Your task to perform on an android device: all mails in gmail Image 0: 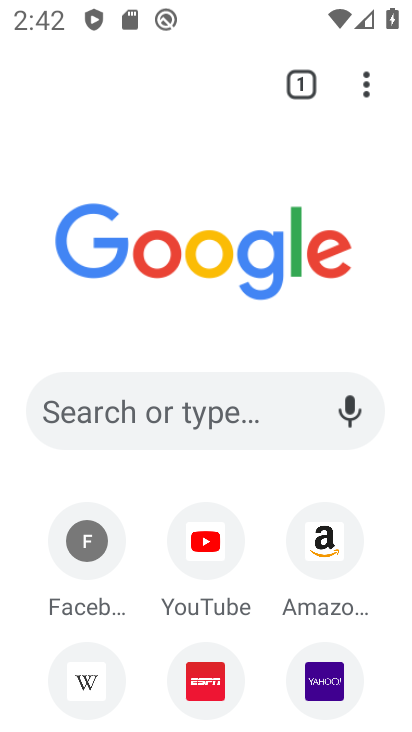
Step 0: press home button
Your task to perform on an android device: all mails in gmail Image 1: 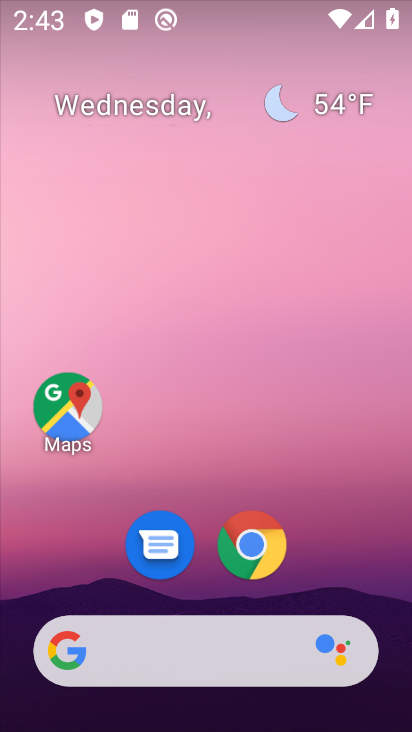
Step 1: drag from (227, 655) to (212, 168)
Your task to perform on an android device: all mails in gmail Image 2: 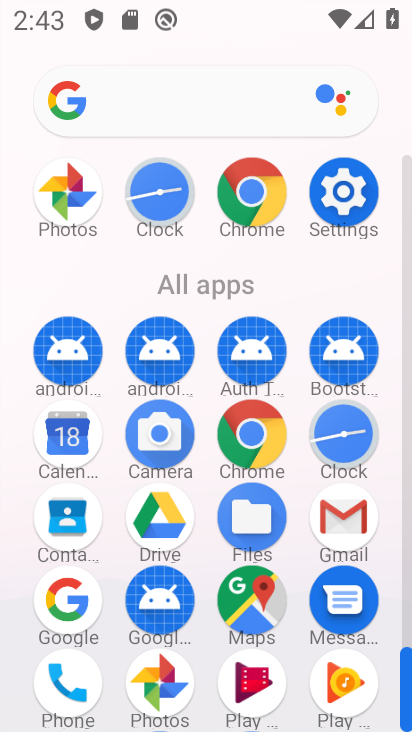
Step 2: click (316, 524)
Your task to perform on an android device: all mails in gmail Image 3: 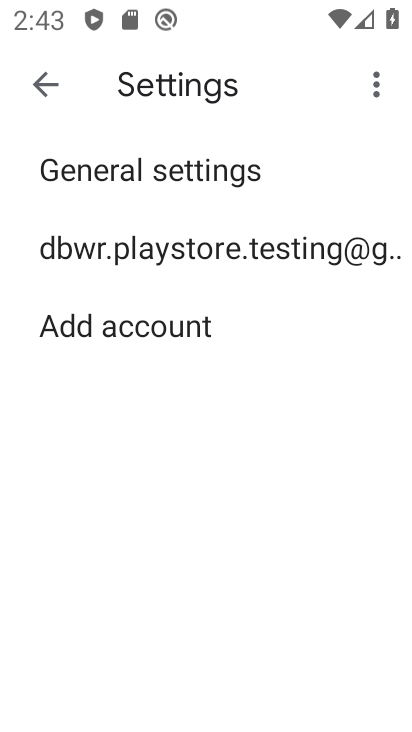
Step 3: click (46, 90)
Your task to perform on an android device: all mails in gmail Image 4: 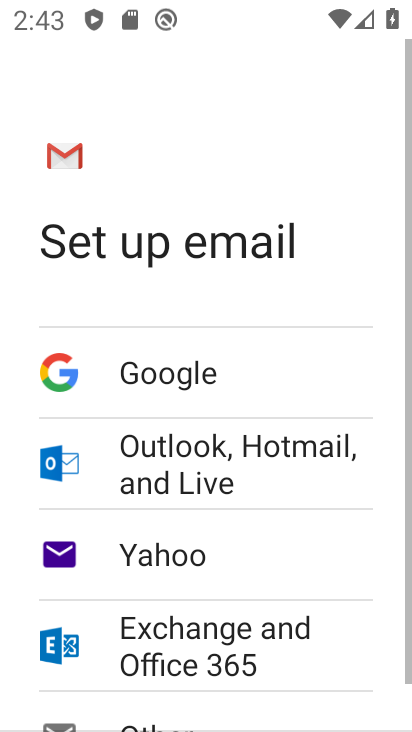
Step 4: press back button
Your task to perform on an android device: all mails in gmail Image 5: 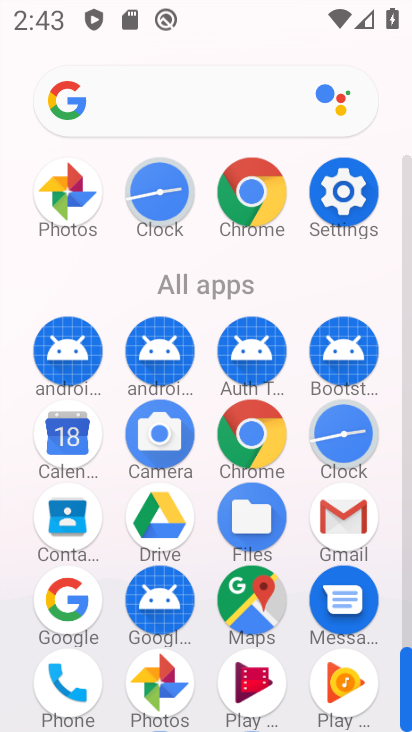
Step 5: click (347, 520)
Your task to perform on an android device: all mails in gmail Image 6: 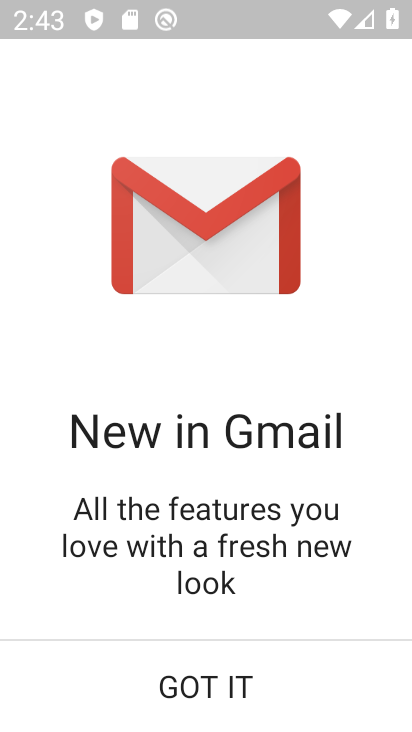
Step 6: click (253, 677)
Your task to perform on an android device: all mails in gmail Image 7: 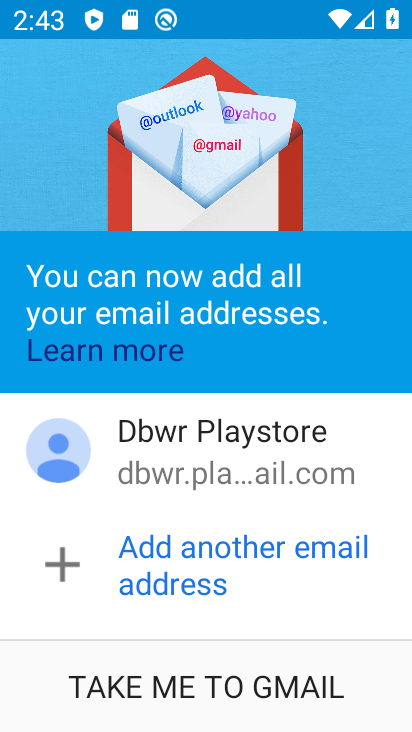
Step 7: click (126, 684)
Your task to perform on an android device: all mails in gmail Image 8: 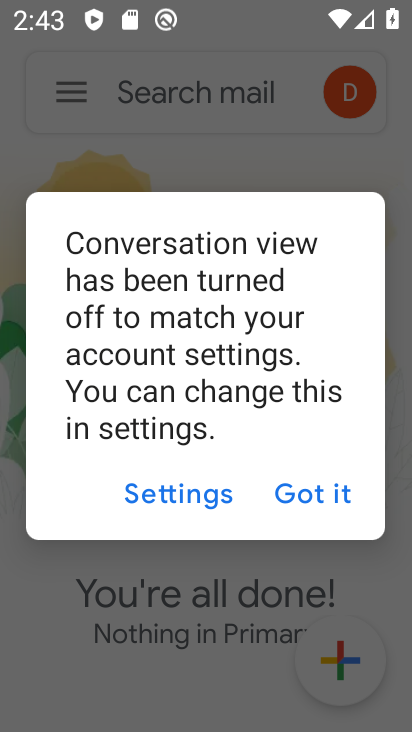
Step 8: click (292, 483)
Your task to perform on an android device: all mails in gmail Image 9: 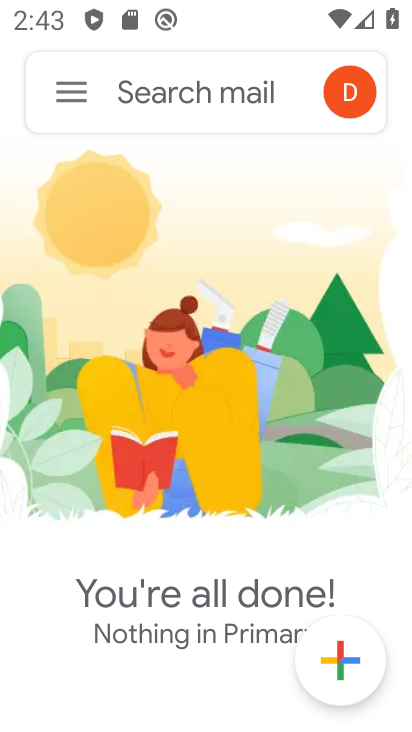
Step 9: click (89, 89)
Your task to perform on an android device: all mails in gmail Image 10: 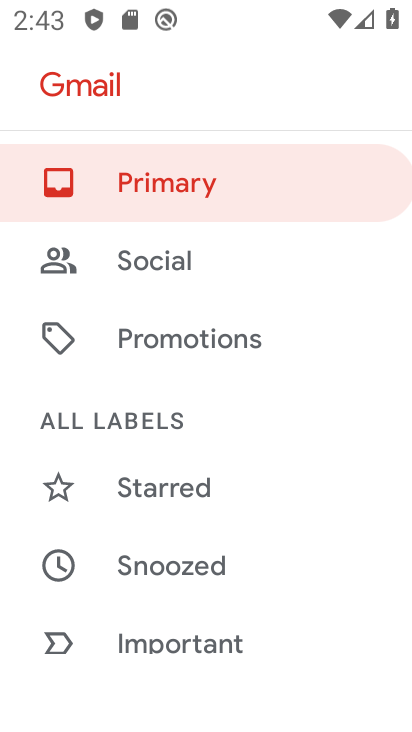
Step 10: drag from (209, 609) to (265, 278)
Your task to perform on an android device: all mails in gmail Image 11: 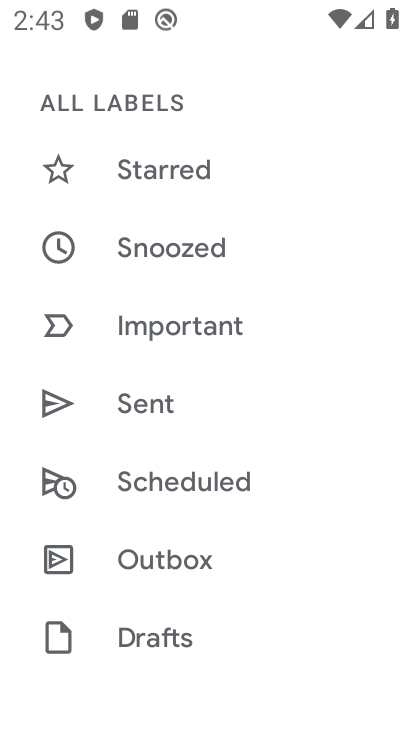
Step 11: drag from (194, 312) to (198, 270)
Your task to perform on an android device: all mails in gmail Image 12: 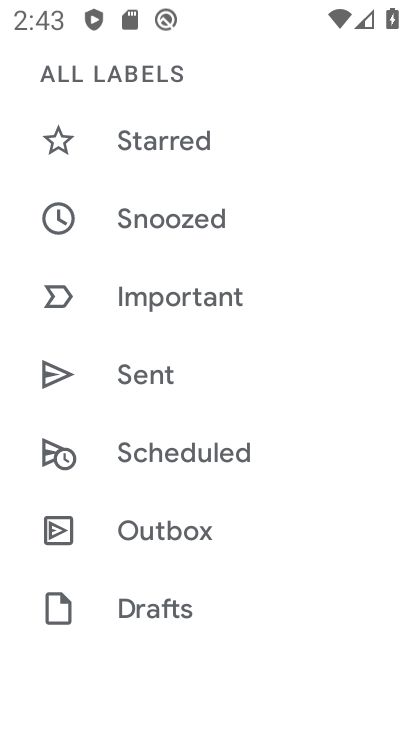
Step 12: drag from (160, 627) to (245, 351)
Your task to perform on an android device: all mails in gmail Image 13: 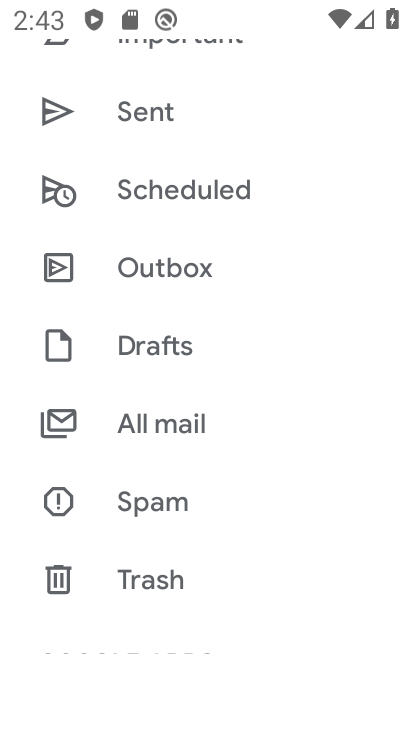
Step 13: click (155, 420)
Your task to perform on an android device: all mails in gmail Image 14: 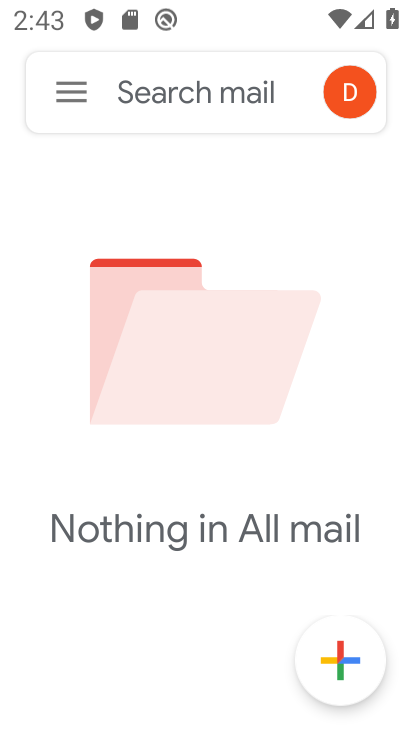
Step 14: task complete